Your task to perform on an android device: manage bookmarks in the chrome app Image 0: 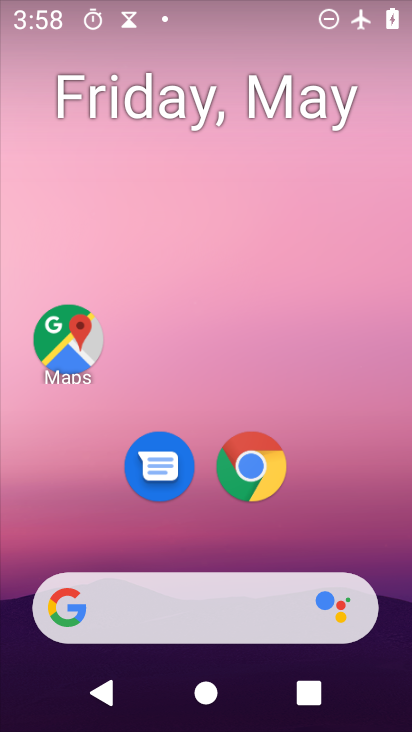
Step 0: drag from (349, 530) to (314, 94)
Your task to perform on an android device: manage bookmarks in the chrome app Image 1: 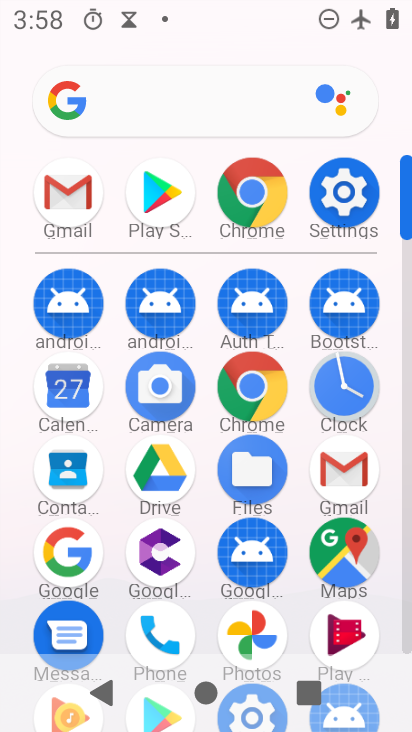
Step 1: click (257, 187)
Your task to perform on an android device: manage bookmarks in the chrome app Image 2: 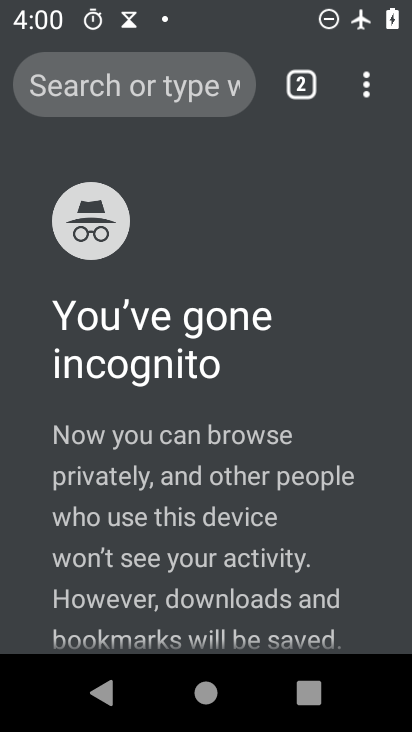
Step 2: drag from (374, 86) to (83, 324)
Your task to perform on an android device: manage bookmarks in the chrome app Image 3: 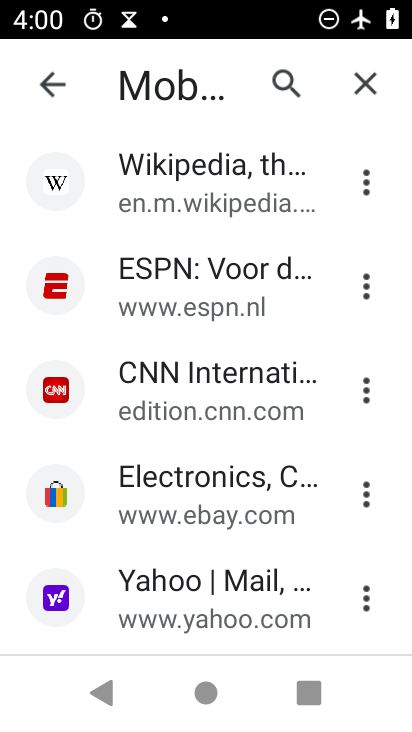
Step 3: drag from (170, 577) to (158, 227)
Your task to perform on an android device: manage bookmarks in the chrome app Image 4: 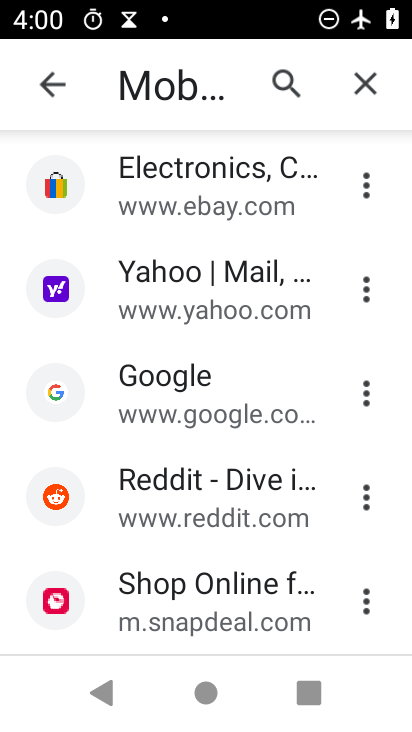
Step 4: drag from (162, 221) to (261, 658)
Your task to perform on an android device: manage bookmarks in the chrome app Image 5: 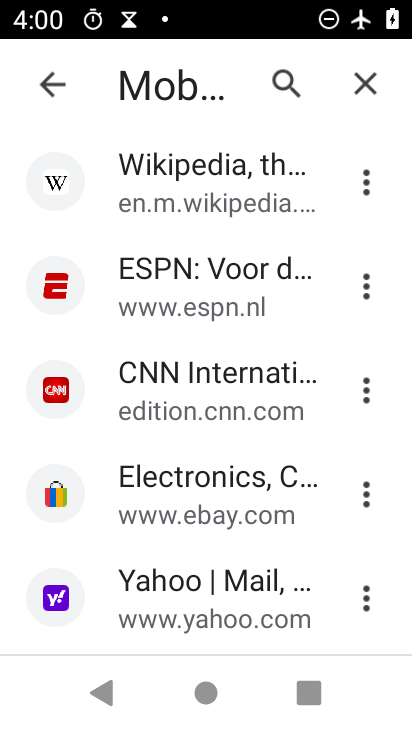
Step 5: click (209, 207)
Your task to perform on an android device: manage bookmarks in the chrome app Image 6: 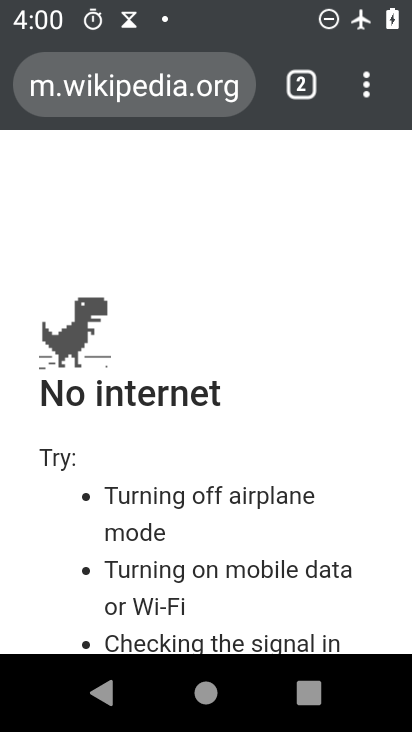
Step 6: click (357, 95)
Your task to perform on an android device: manage bookmarks in the chrome app Image 7: 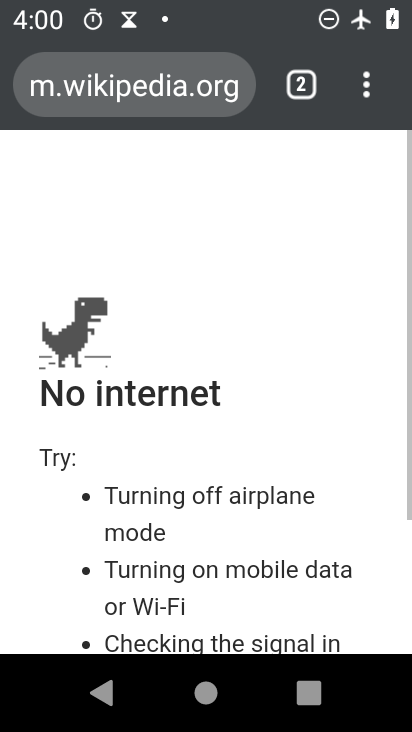
Step 7: task complete